Your task to perform on an android device: read, delete, or share a saved page in the chrome app Image 0: 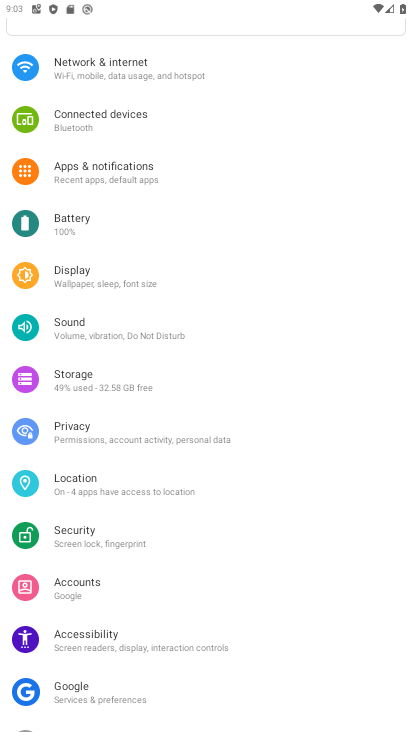
Step 0: press back button
Your task to perform on an android device: read, delete, or share a saved page in the chrome app Image 1: 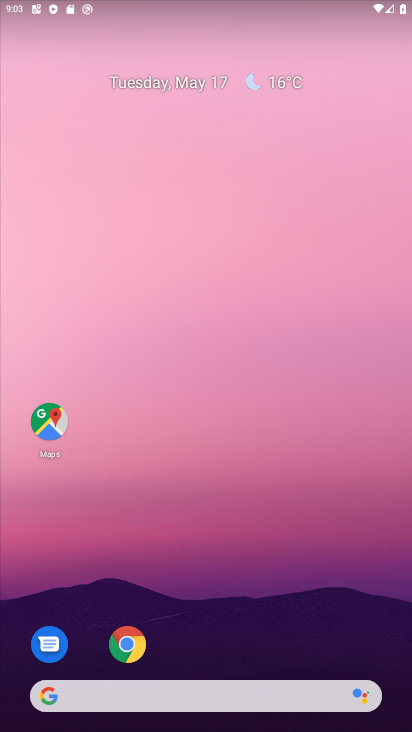
Step 1: click (132, 636)
Your task to perform on an android device: read, delete, or share a saved page in the chrome app Image 2: 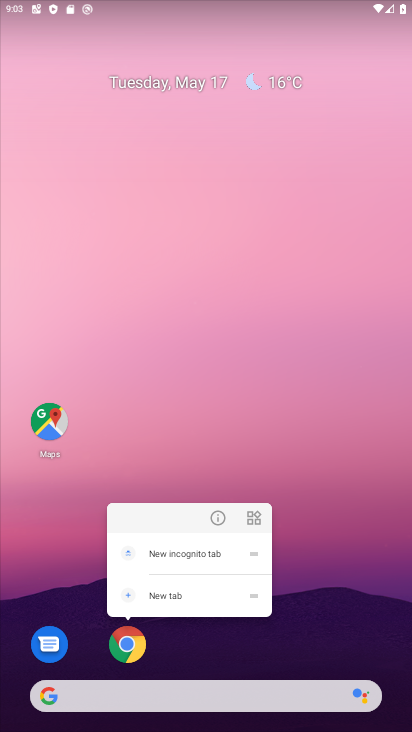
Step 2: click (139, 643)
Your task to perform on an android device: read, delete, or share a saved page in the chrome app Image 3: 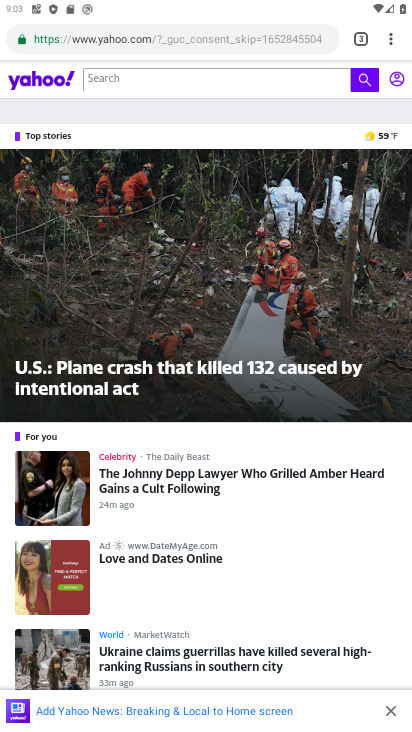
Step 3: click (391, 33)
Your task to perform on an android device: read, delete, or share a saved page in the chrome app Image 4: 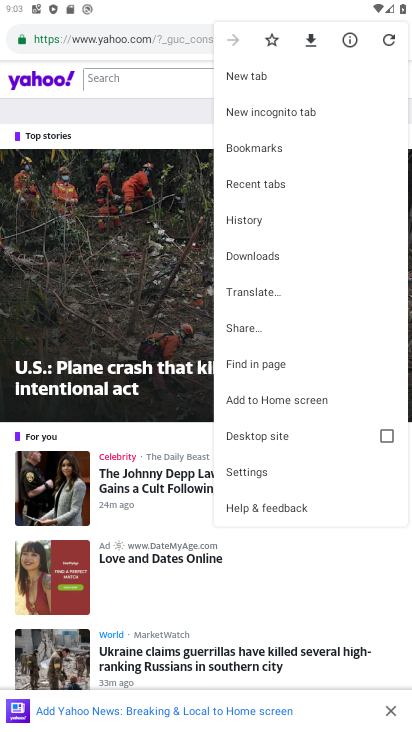
Step 4: click (260, 263)
Your task to perform on an android device: read, delete, or share a saved page in the chrome app Image 5: 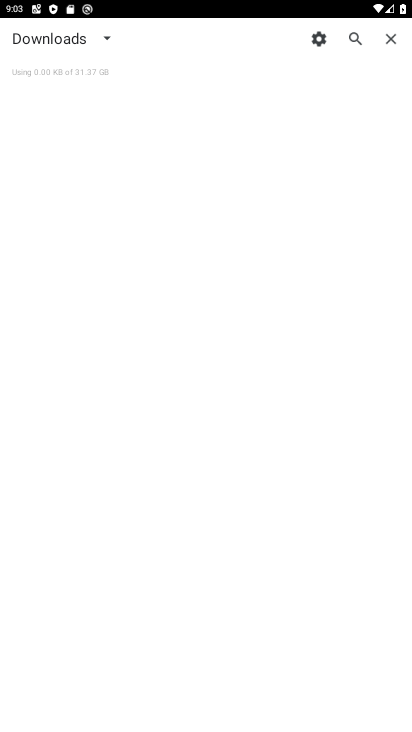
Step 5: click (95, 42)
Your task to perform on an android device: read, delete, or share a saved page in the chrome app Image 6: 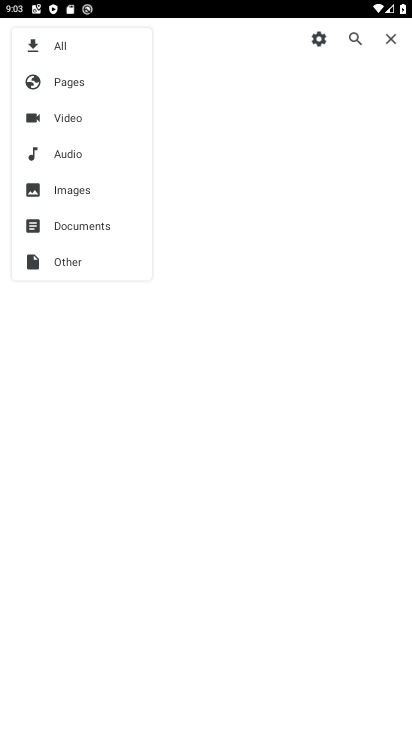
Step 6: click (77, 70)
Your task to perform on an android device: read, delete, or share a saved page in the chrome app Image 7: 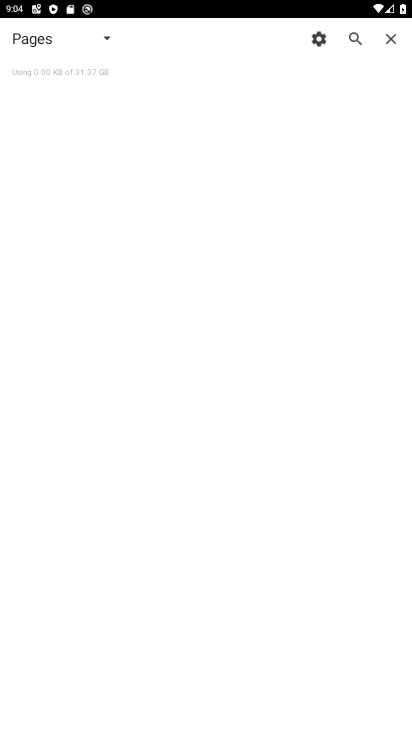
Step 7: task complete